Your task to perform on an android device: Open Youtube and go to the subscriptions tab Image 0: 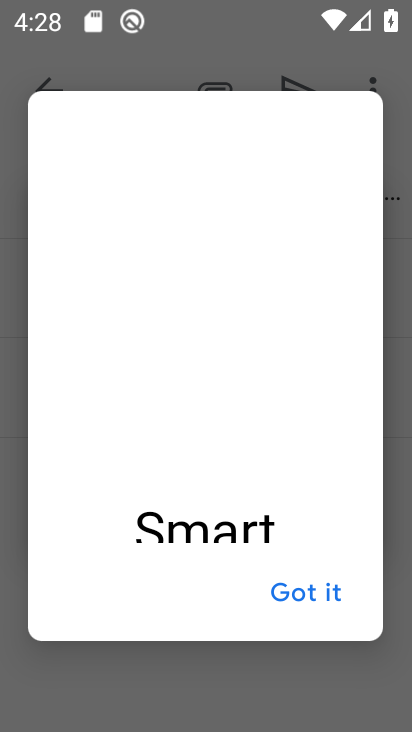
Step 0: click (297, 582)
Your task to perform on an android device: Open Youtube and go to the subscriptions tab Image 1: 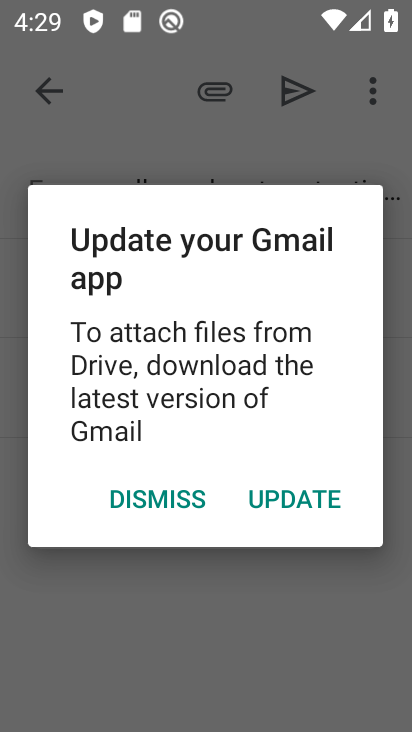
Step 1: press back button
Your task to perform on an android device: Open Youtube and go to the subscriptions tab Image 2: 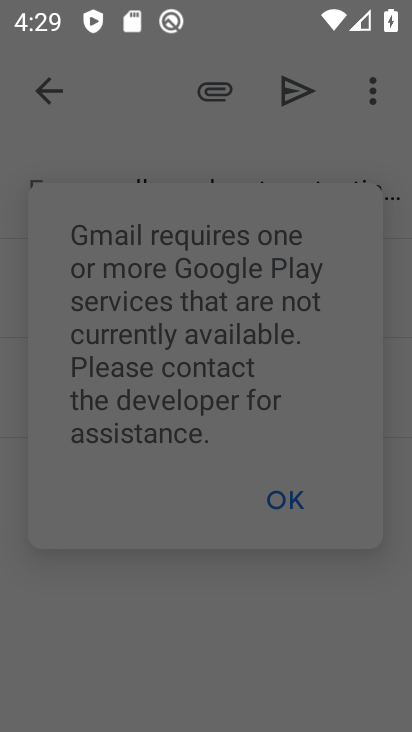
Step 2: press home button
Your task to perform on an android device: Open Youtube and go to the subscriptions tab Image 3: 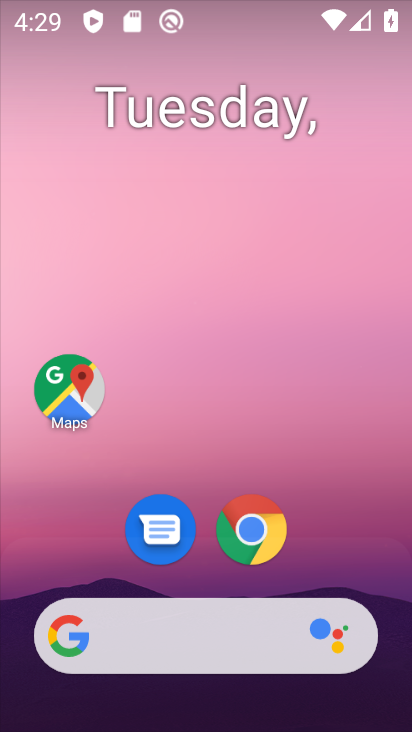
Step 3: drag from (334, 544) to (208, 41)
Your task to perform on an android device: Open Youtube and go to the subscriptions tab Image 4: 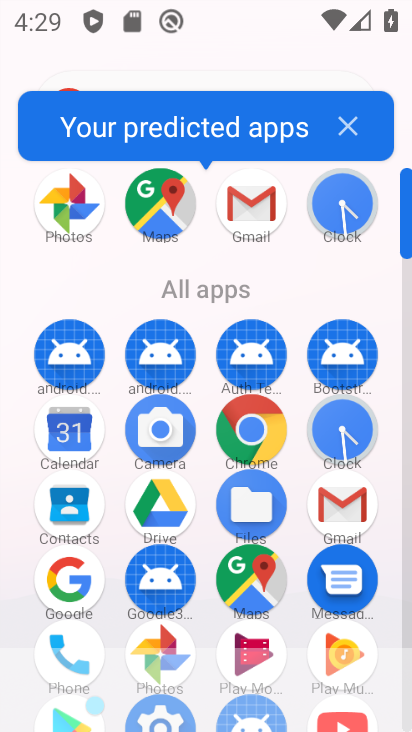
Step 4: drag from (12, 548) to (0, 330)
Your task to perform on an android device: Open Youtube and go to the subscriptions tab Image 5: 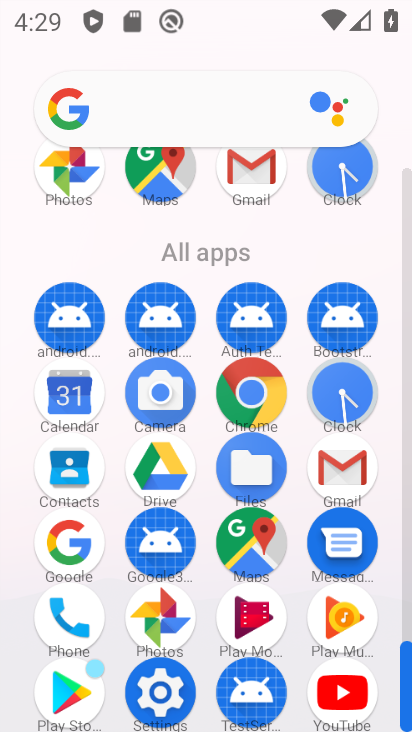
Step 5: click (344, 684)
Your task to perform on an android device: Open Youtube and go to the subscriptions tab Image 6: 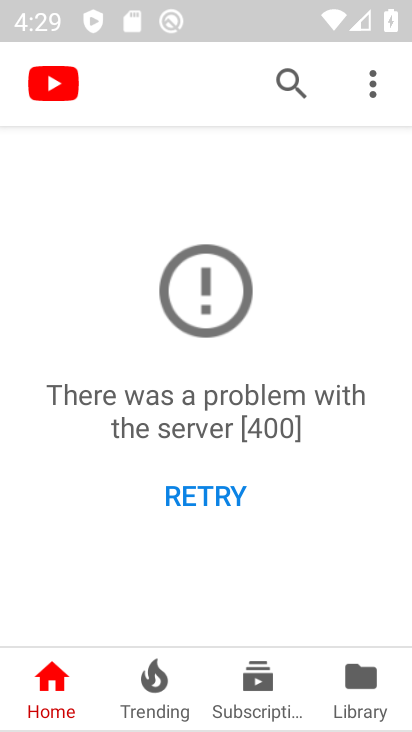
Step 6: click (257, 687)
Your task to perform on an android device: Open Youtube and go to the subscriptions tab Image 7: 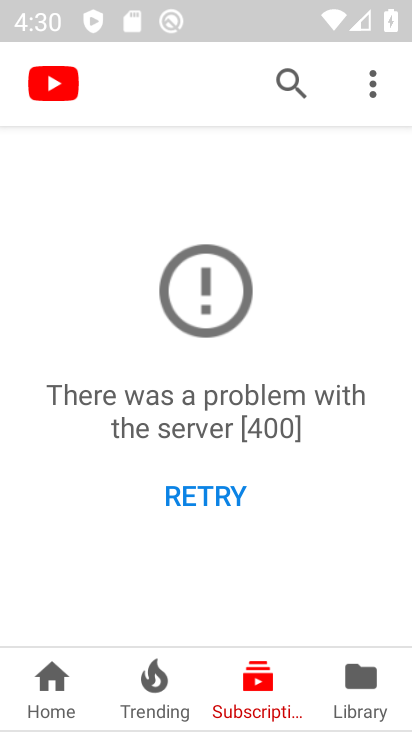
Step 7: task complete